Your task to perform on an android device: Search for pizza restaurants on Maps Image 0: 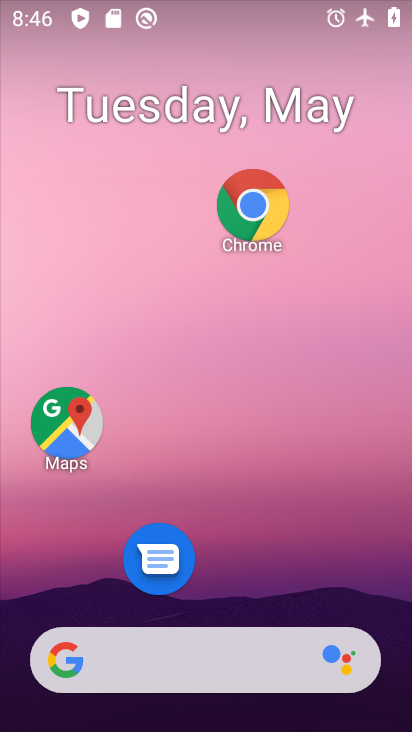
Step 0: click (65, 398)
Your task to perform on an android device: Search for pizza restaurants on Maps Image 1: 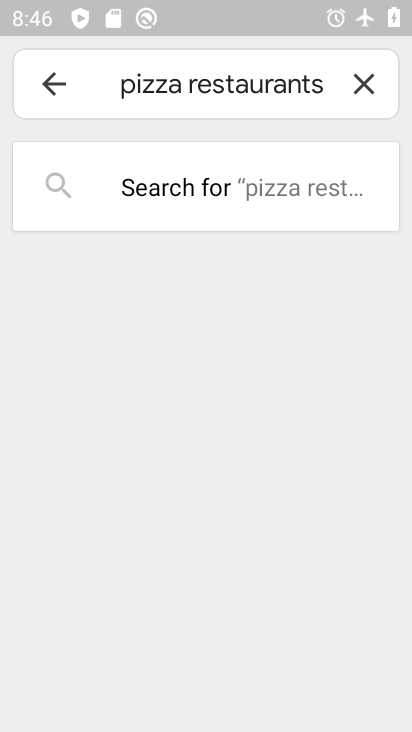
Step 1: task complete